Your task to perform on an android device: open app "AliExpress" Image 0: 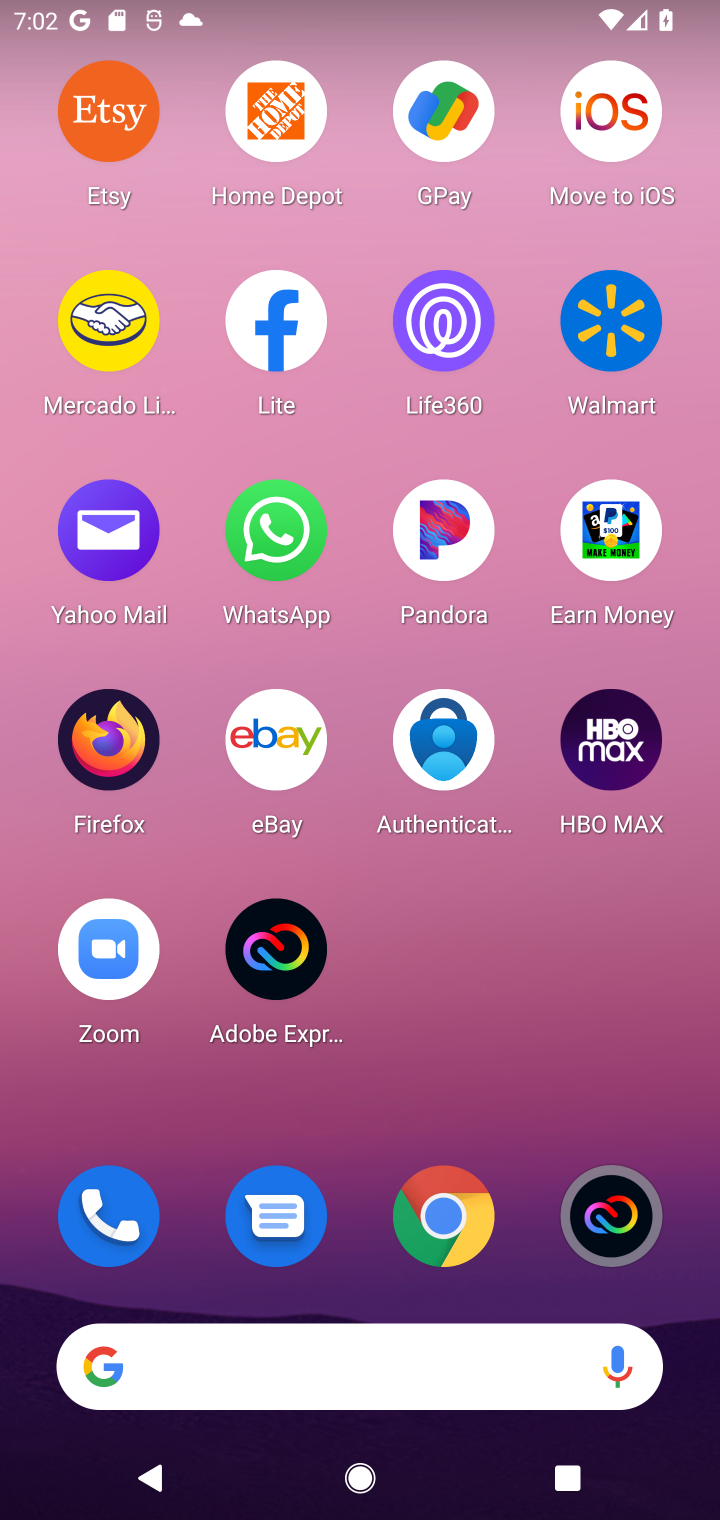
Step 0: drag from (504, 827) to (558, 190)
Your task to perform on an android device: open app "AliExpress" Image 1: 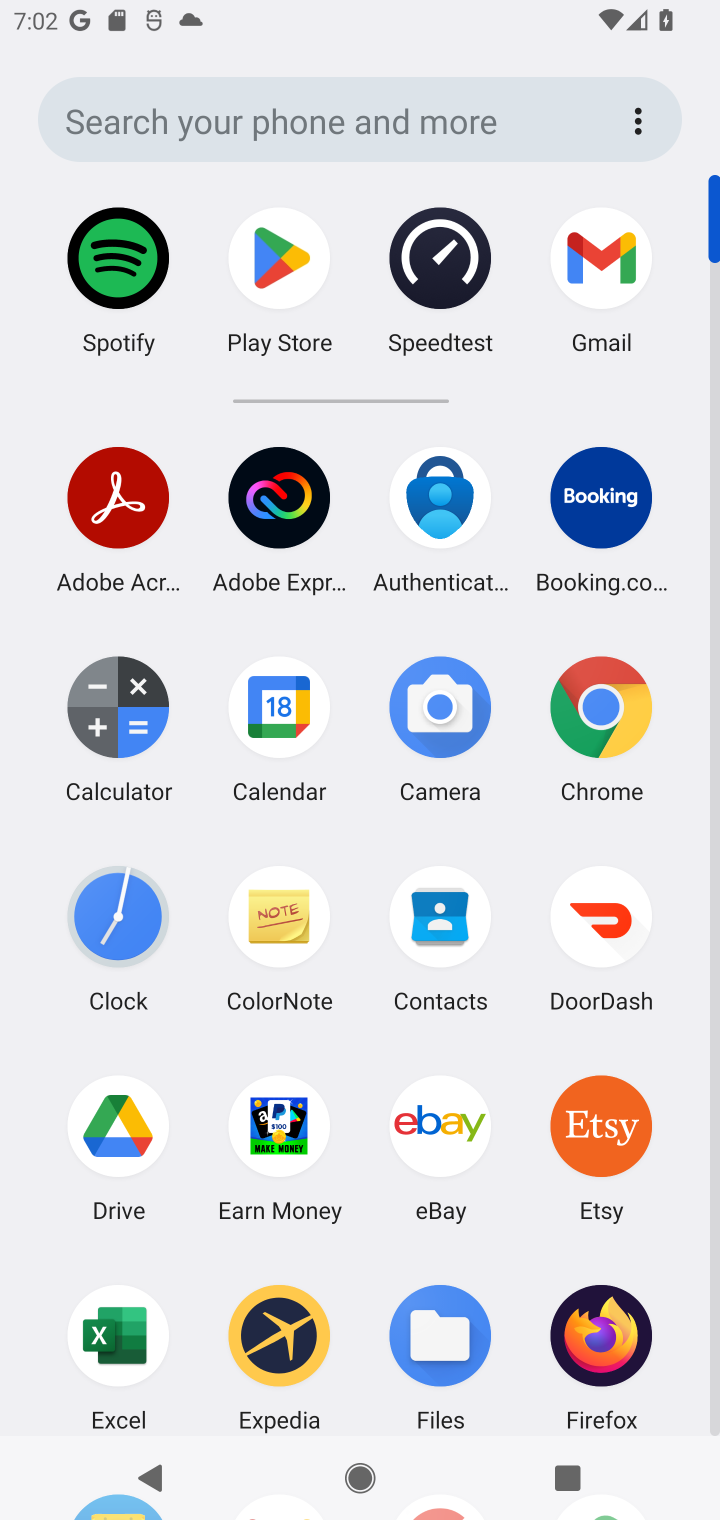
Step 1: drag from (512, 1250) to (567, 650)
Your task to perform on an android device: open app "AliExpress" Image 2: 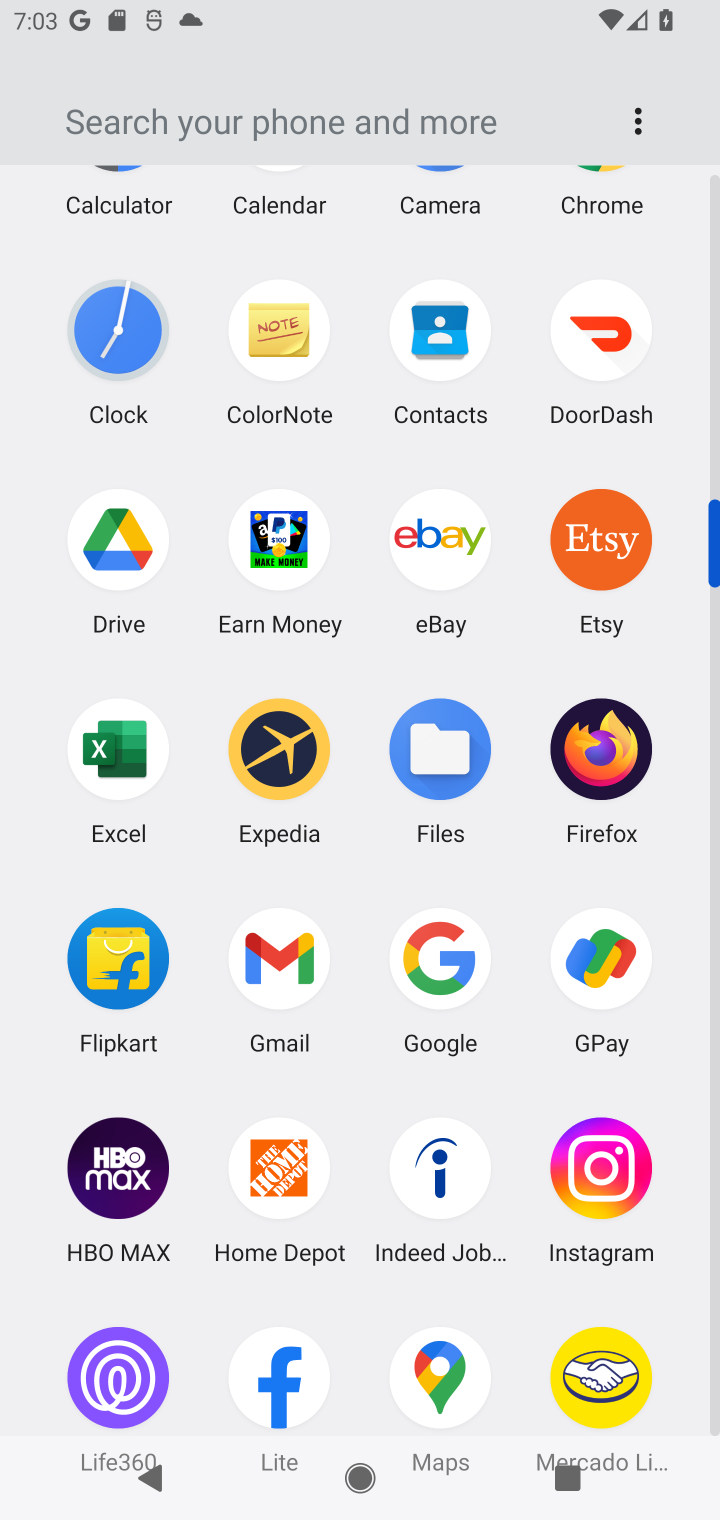
Step 2: drag from (526, 1155) to (552, 491)
Your task to perform on an android device: open app "AliExpress" Image 3: 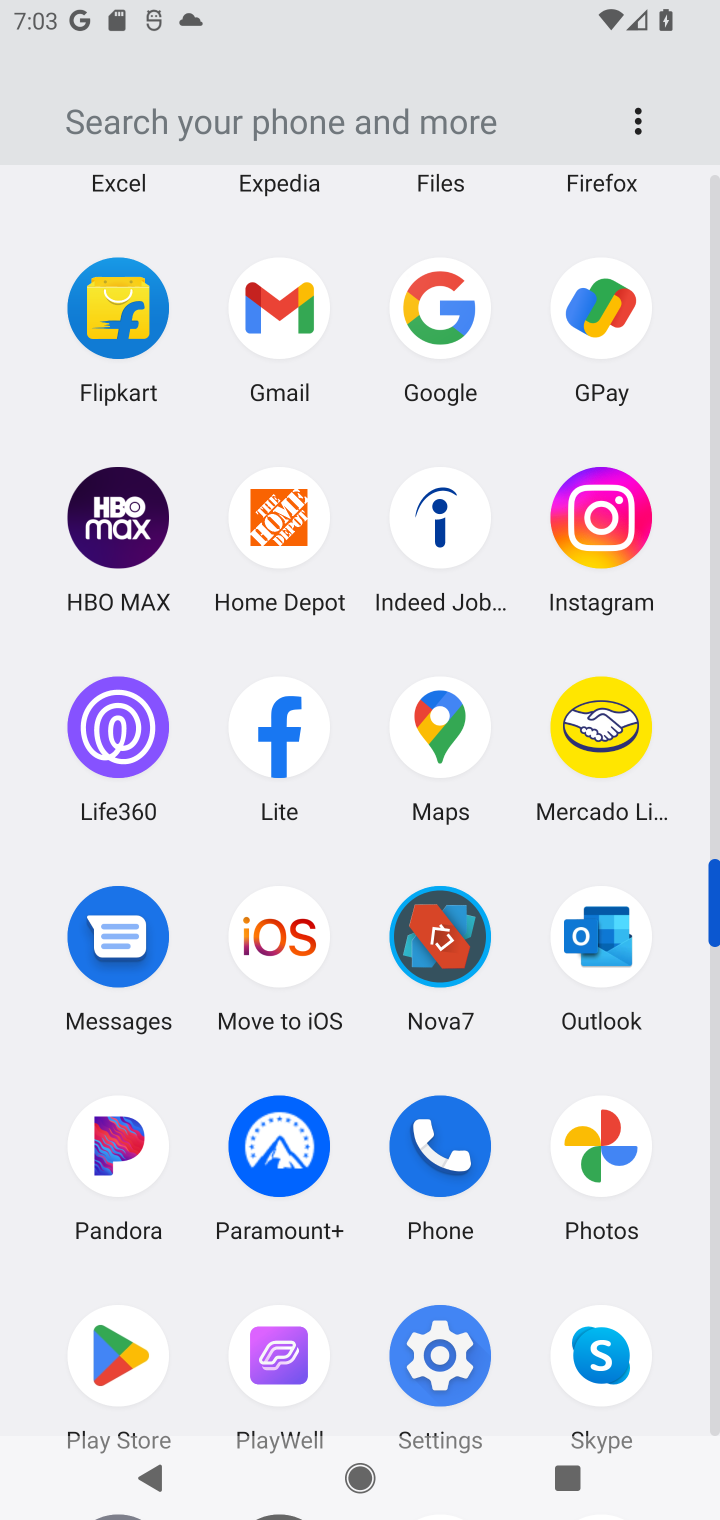
Step 3: drag from (519, 1147) to (528, 588)
Your task to perform on an android device: open app "AliExpress" Image 4: 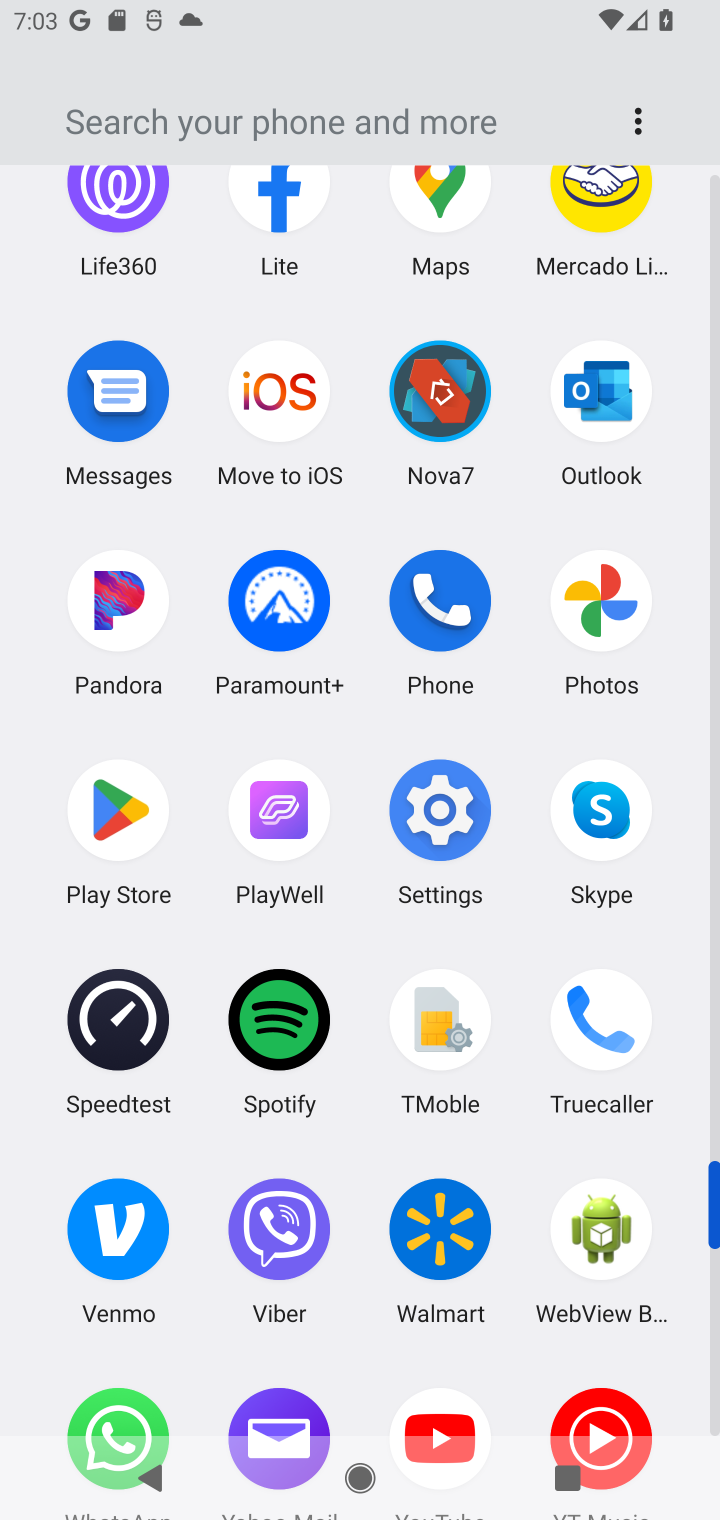
Step 4: drag from (517, 1198) to (515, 668)
Your task to perform on an android device: open app "AliExpress" Image 5: 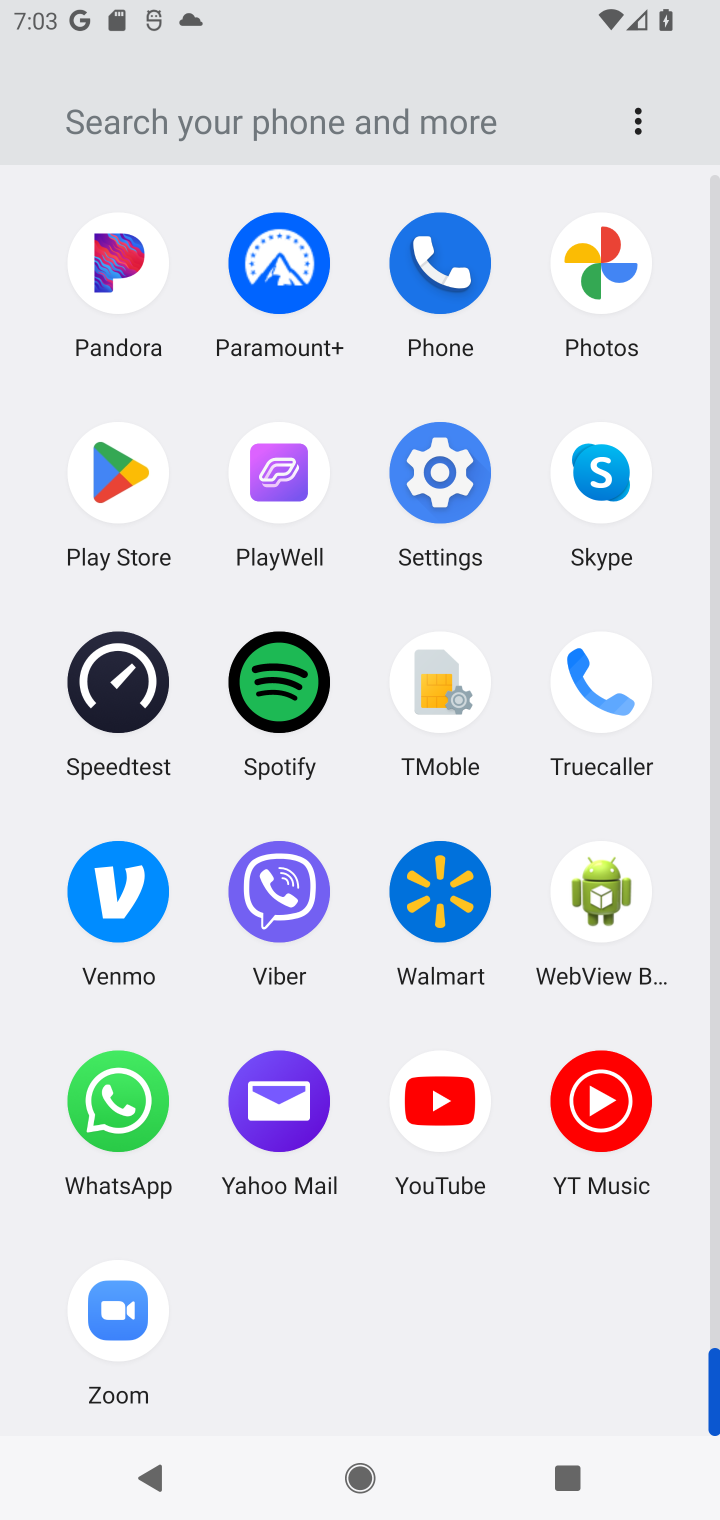
Step 5: click (119, 470)
Your task to perform on an android device: open app "AliExpress" Image 6: 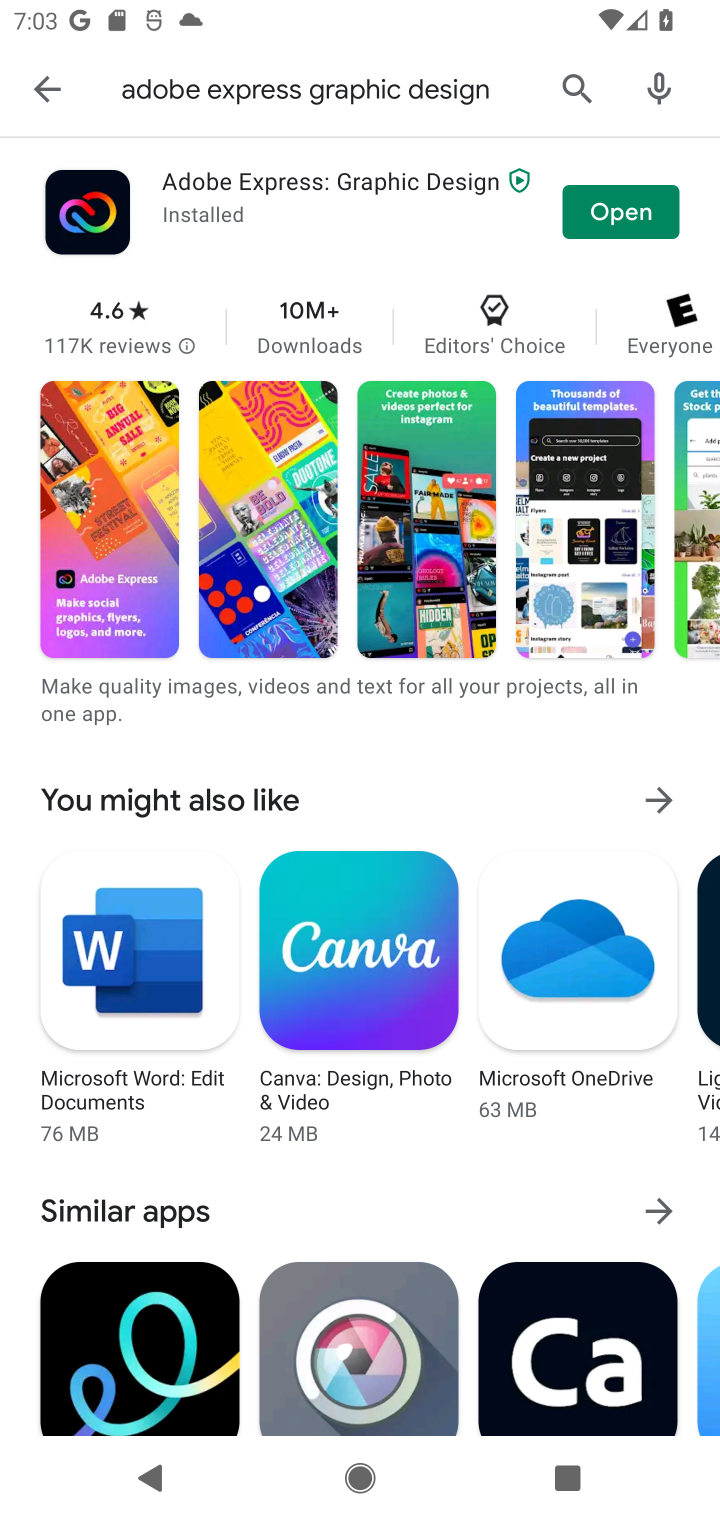
Step 6: click (566, 81)
Your task to perform on an android device: open app "AliExpress" Image 7: 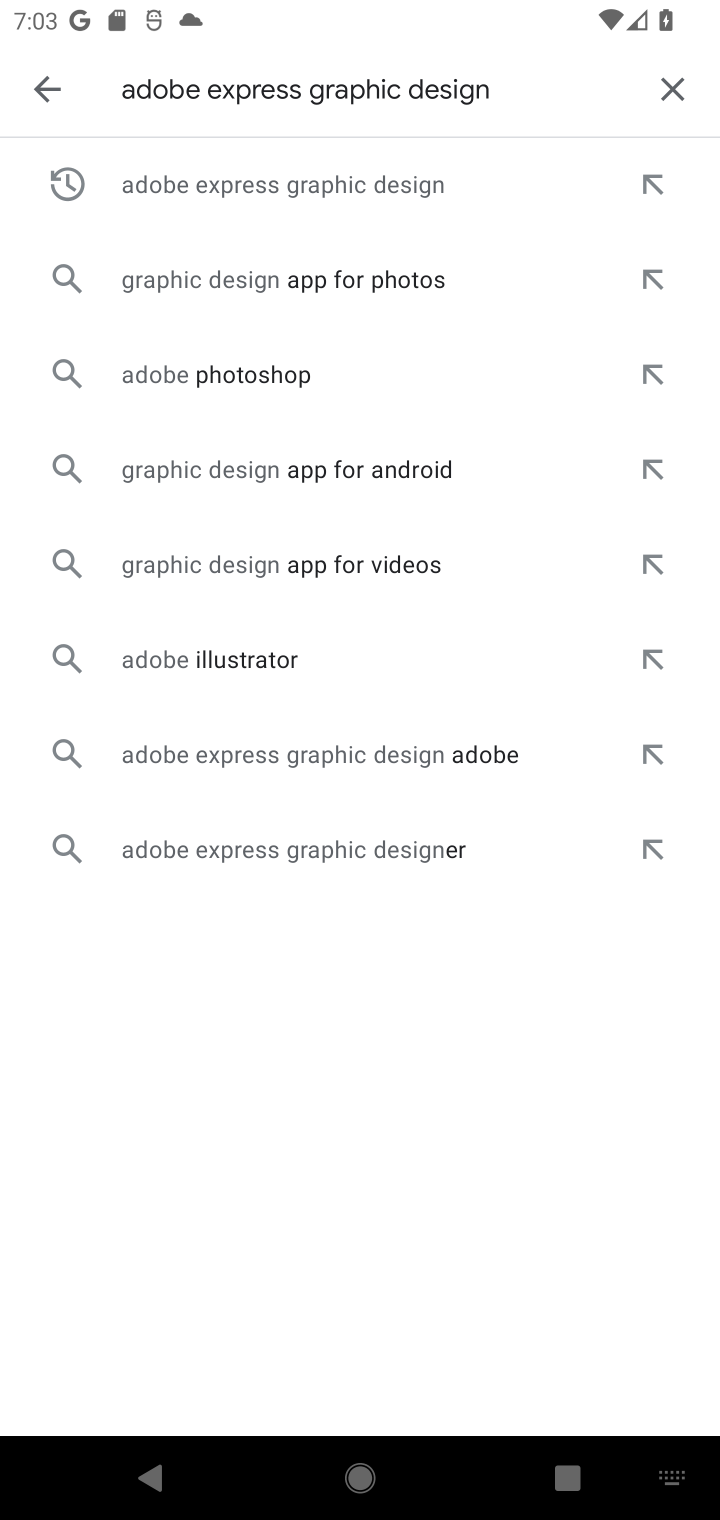
Step 7: click (670, 81)
Your task to perform on an android device: open app "AliExpress" Image 8: 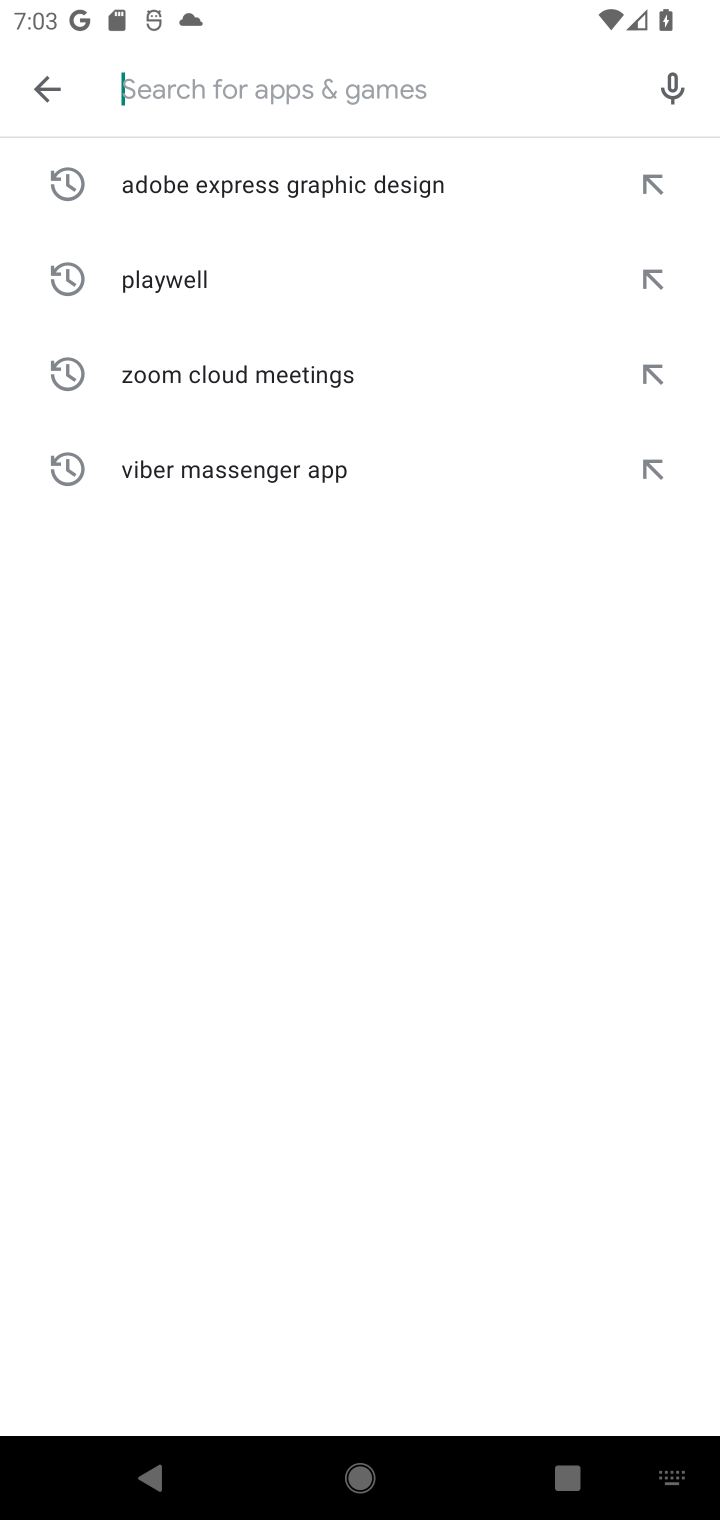
Step 8: type "AliExpress"
Your task to perform on an android device: open app "AliExpress" Image 9: 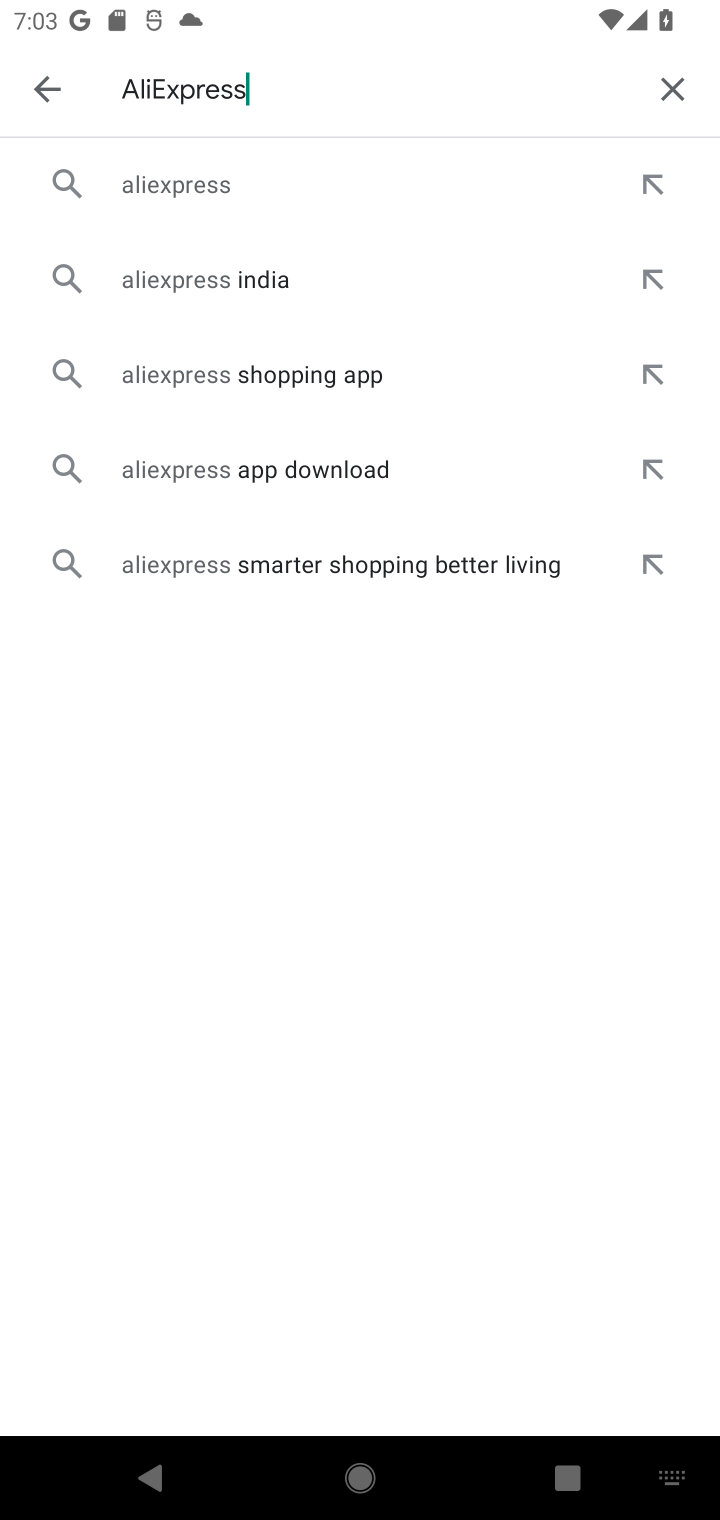
Step 9: click (165, 178)
Your task to perform on an android device: open app "AliExpress" Image 10: 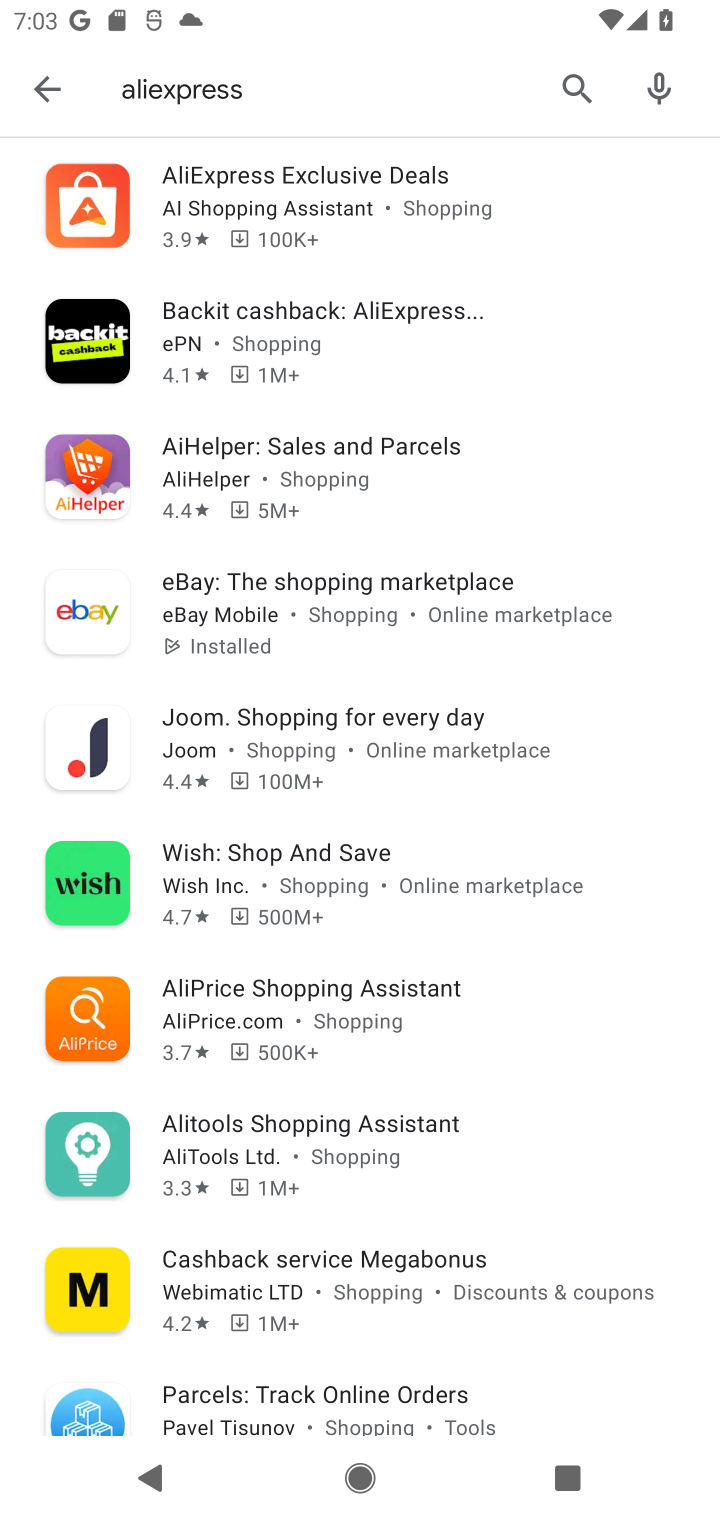
Step 10: click (224, 199)
Your task to perform on an android device: open app "AliExpress" Image 11: 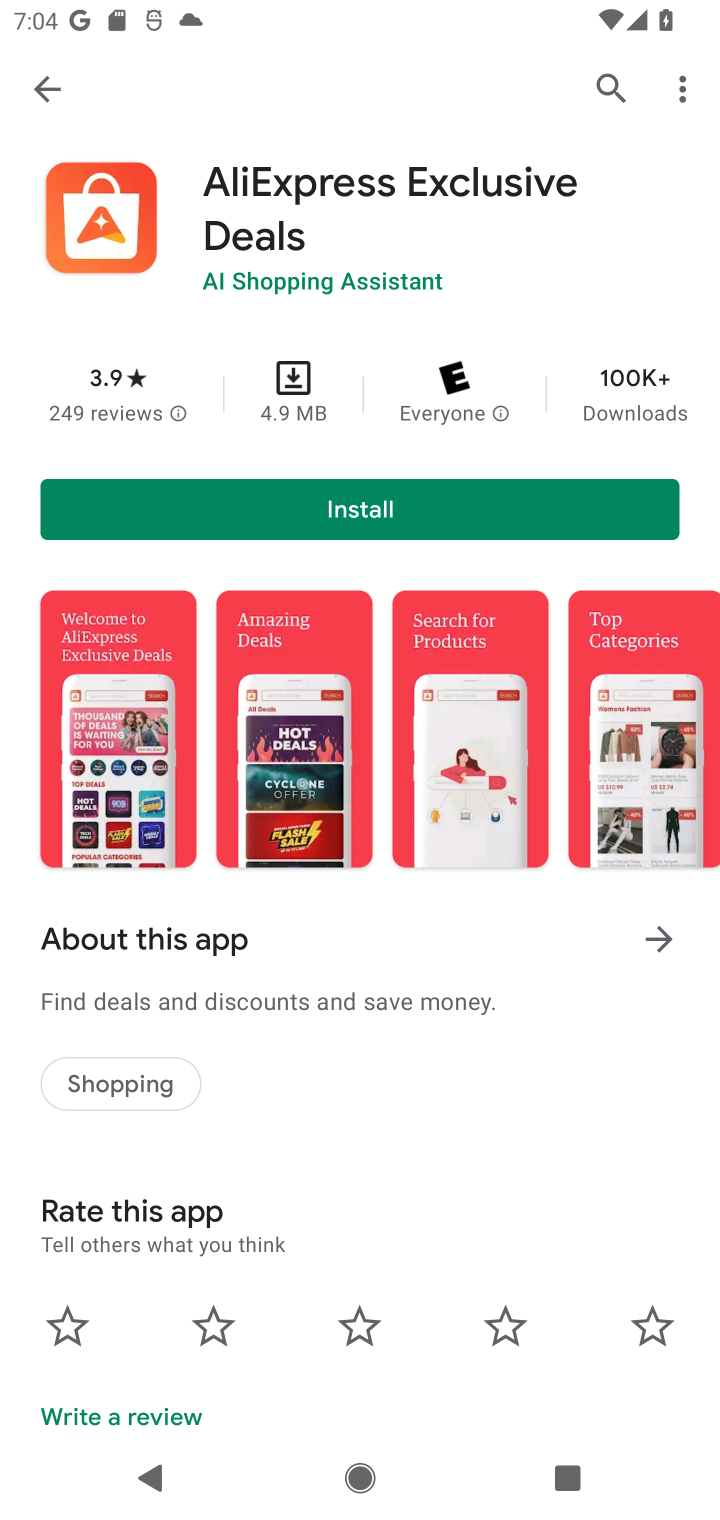
Step 11: task complete